Your task to perform on an android device: Go to wifi settings Image 0: 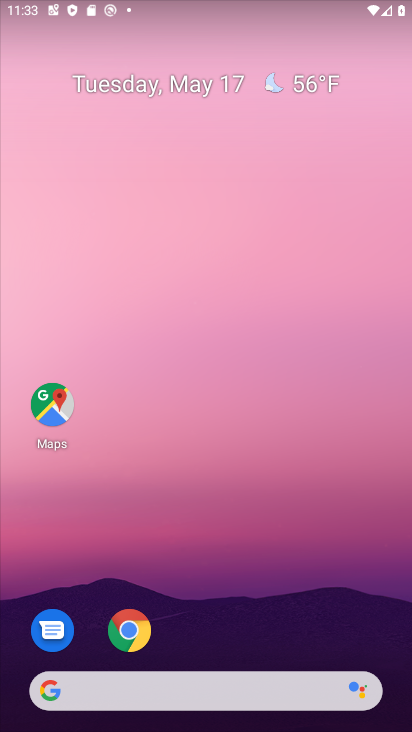
Step 0: drag from (313, 601) to (330, 187)
Your task to perform on an android device: Go to wifi settings Image 1: 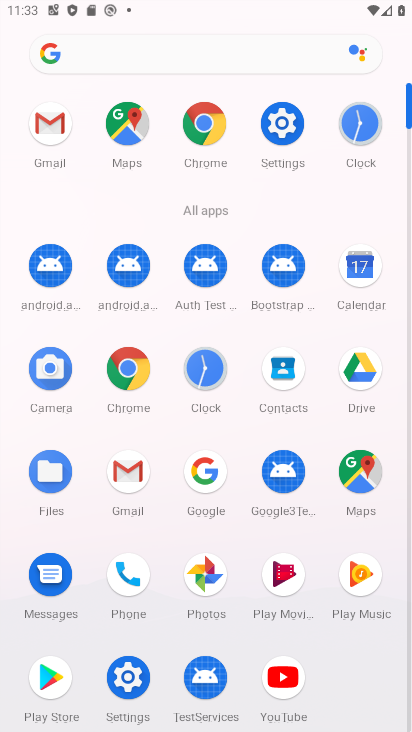
Step 1: click (262, 146)
Your task to perform on an android device: Go to wifi settings Image 2: 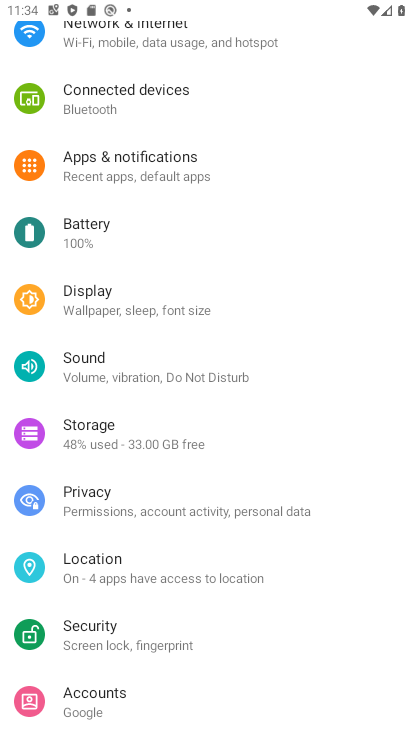
Step 2: drag from (175, 190) to (179, 241)
Your task to perform on an android device: Go to wifi settings Image 3: 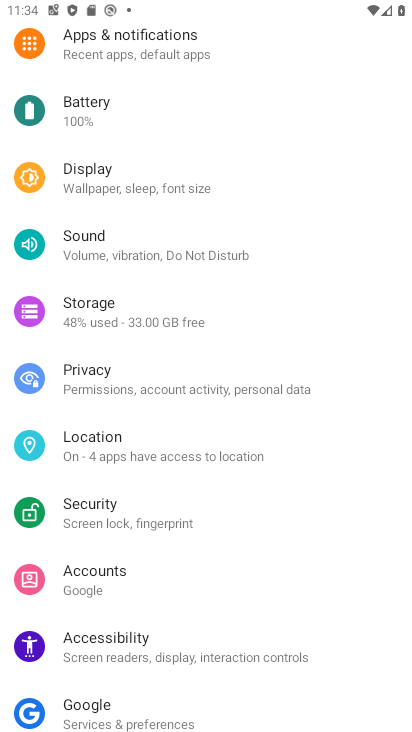
Step 3: drag from (195, 102) to (189, 472)
Your task to perform on an android device: Go to wifi settings Image 4: 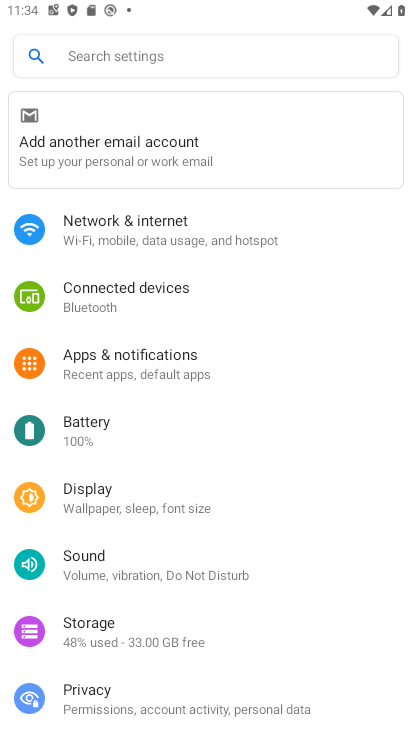
Step 4: click (154, 235)
Your task to perform on an android device: Go to wifi settings Image 5: 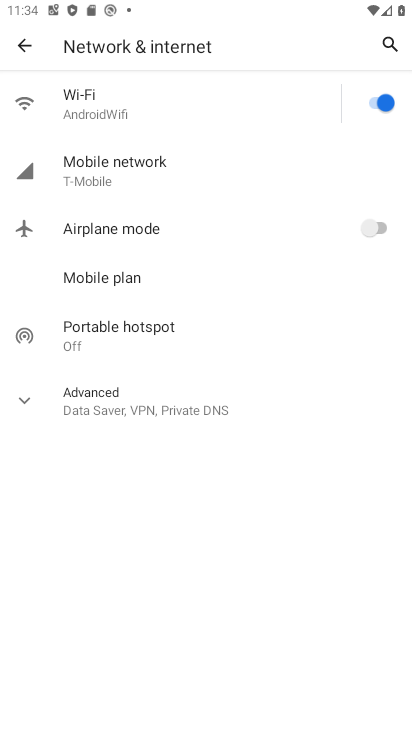
Step 5: click (150, 105)
Your task to perform on an android device: Go to wifi settings Image 6: 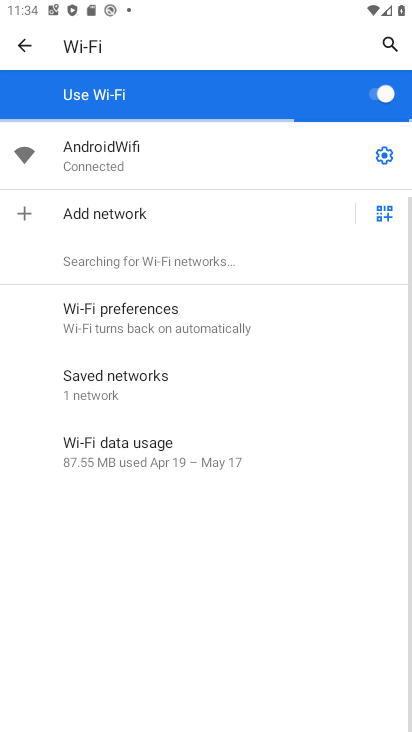
Step 6: click (380, 153)
Your task to perform on an android device: Go to wifi settings Image 7: 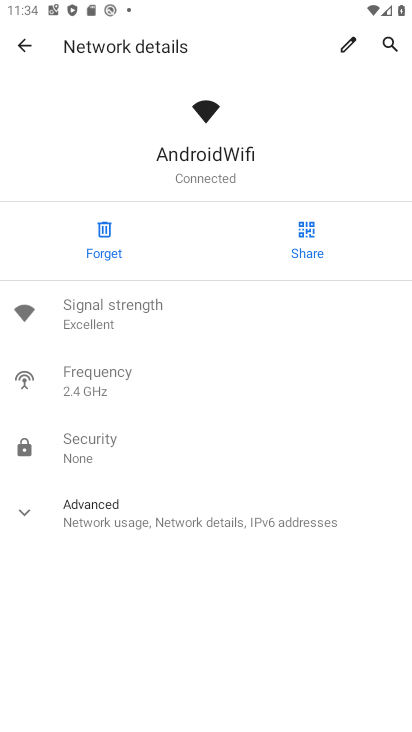
Step 7: task complete